Your task to perform on an android device: Go to notification settings Image 0: 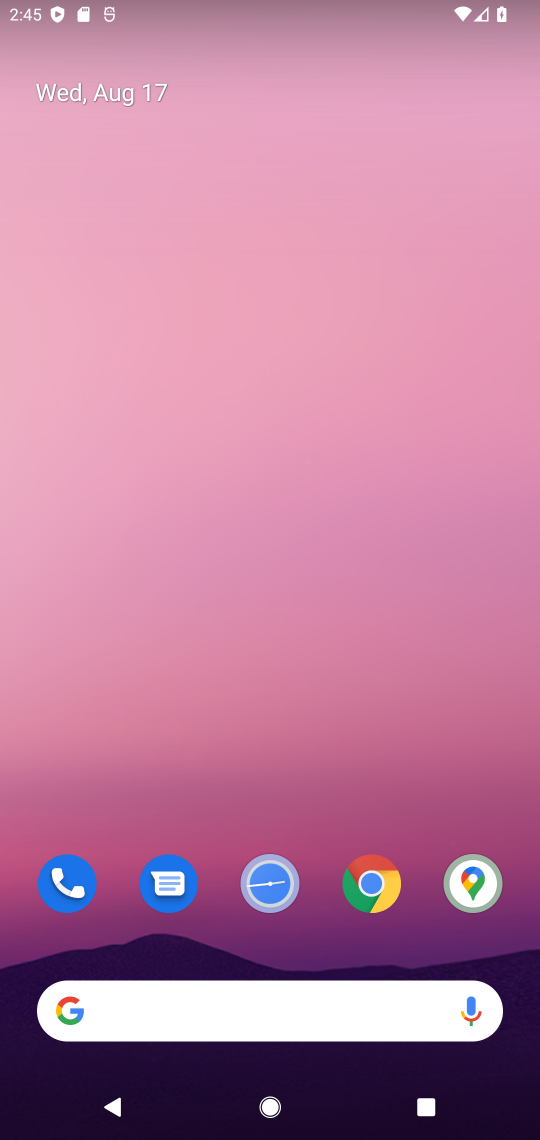
Step 0: drag from (307, 828) to (316, 148)
Your task to perform on an android device: Go to notification settings Image 1: 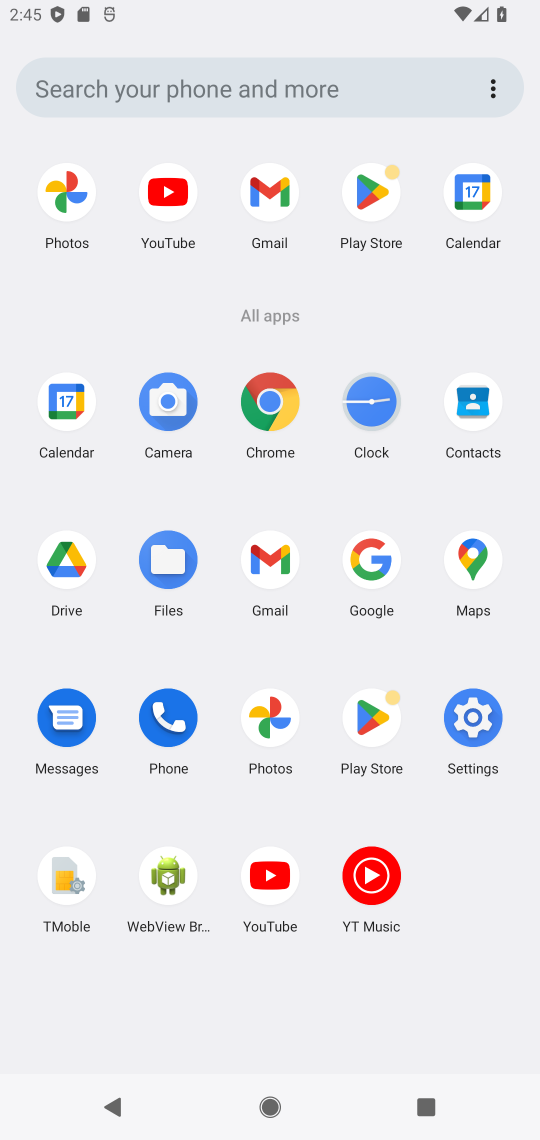
Step 1: click (473, 719)
Your task to perform on an android device: Go to notification settings Image 2: 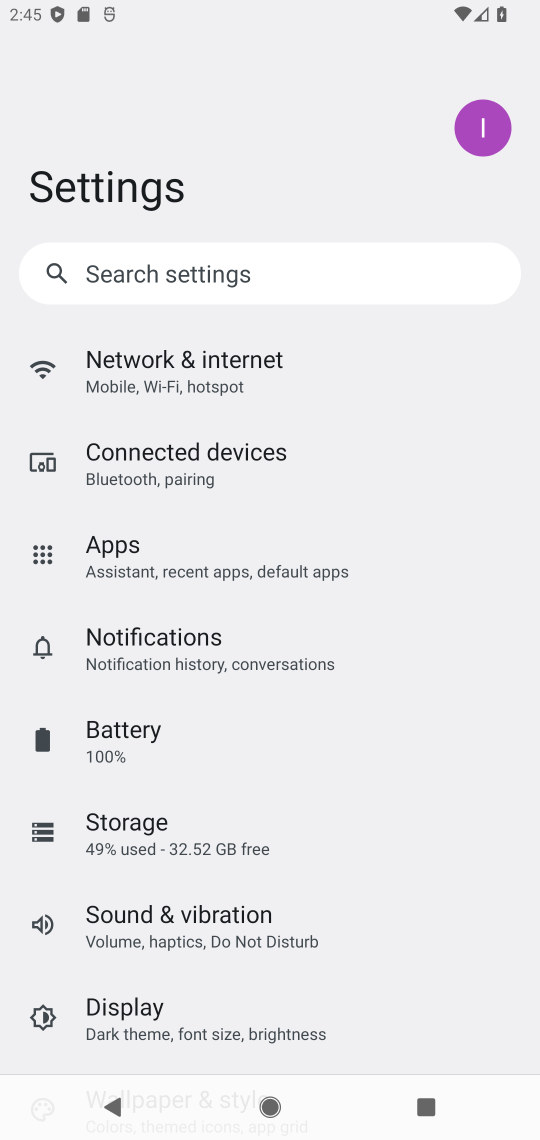
Step 2: click (264, 665)
Your task to perform on an android device: Go to notification settings Image 3: 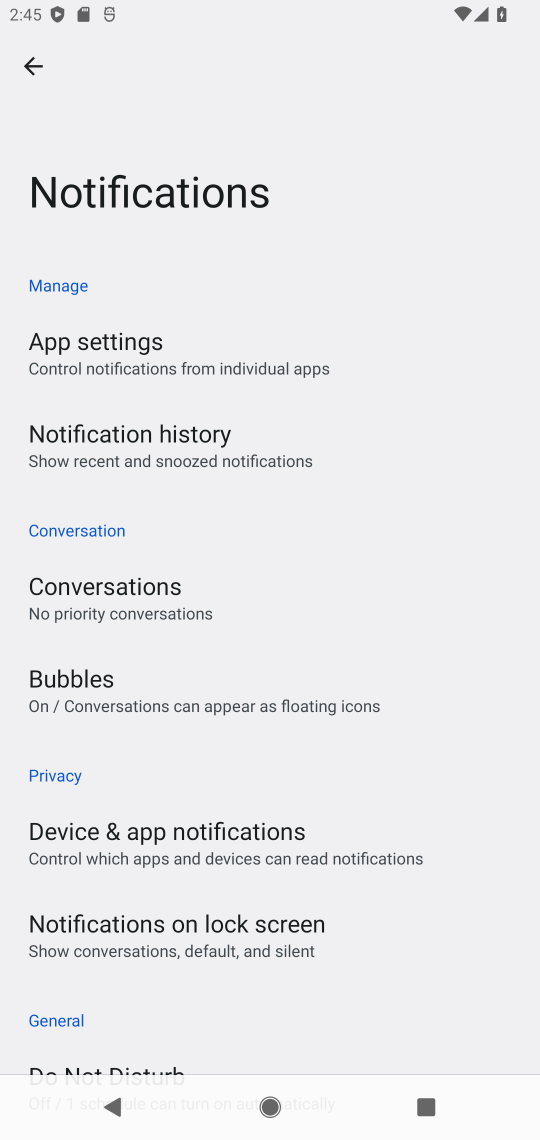
Step 3: task complete